Your task to perform on an android device: Toggle the flashlight Image 0: 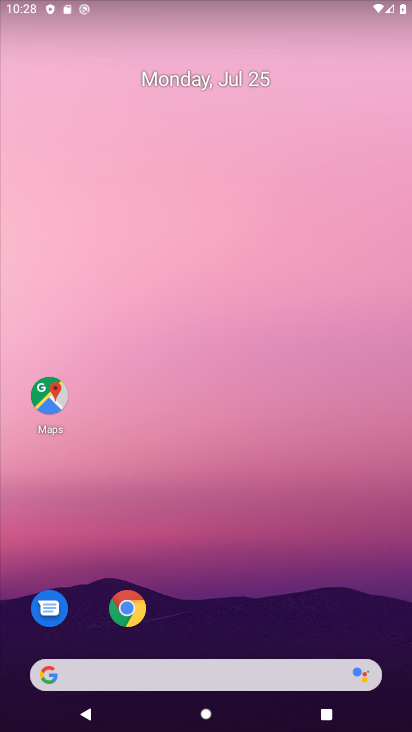
Step 0: drag from (261, 698) to (218, 148)
Your task to perform on an android device: Toggle the flashlight Image 1: 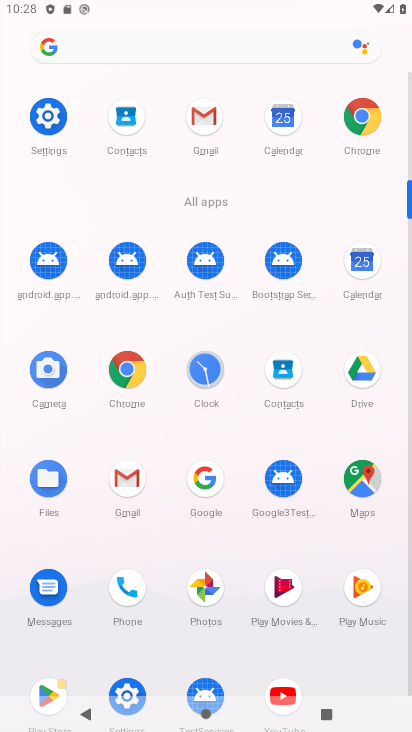
Step 1: task complete